Your task to perform on an android device: Go to Yahoo.com Image 0: 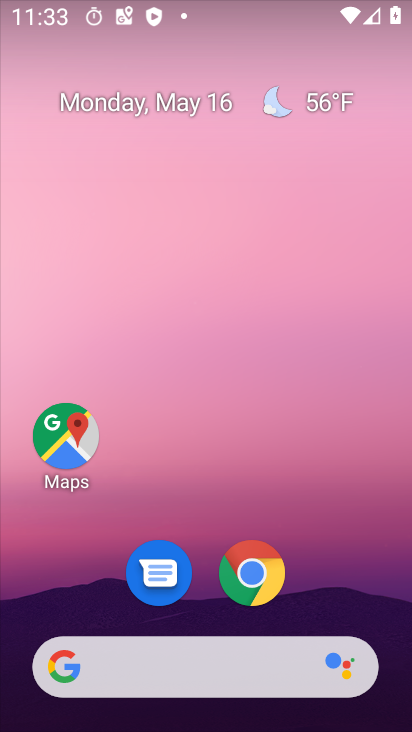
Step 0: click (152, 680)
Your task to perform on an android device: Go to Yahoo.com Image 1: 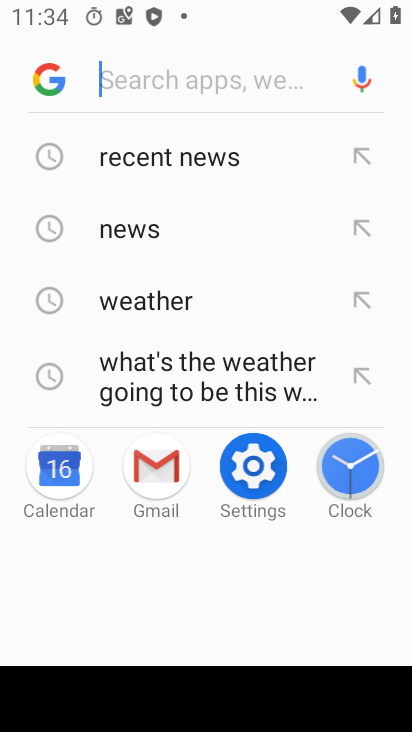
Step 1: type "yahoo.com"
Your task to perform on an android device: Go to Yahoo.com Image 2: 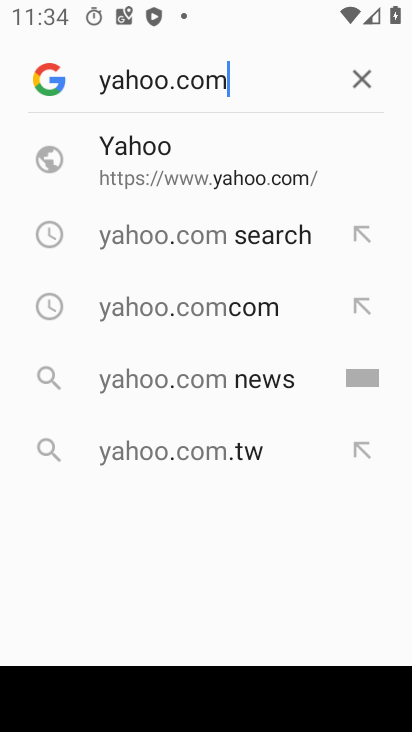
Step 2: click (290, 169)
Your task to perform on an android device: Go to Yahoo.com Image 3: 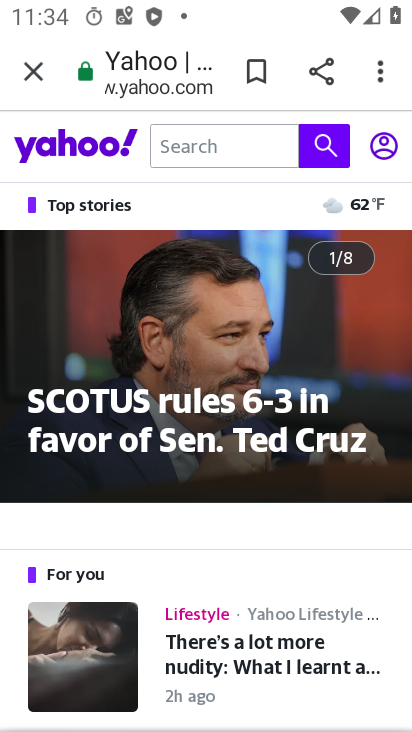
Step 3: task complete